Your task to perform on an android device: Go to settings Image 0: 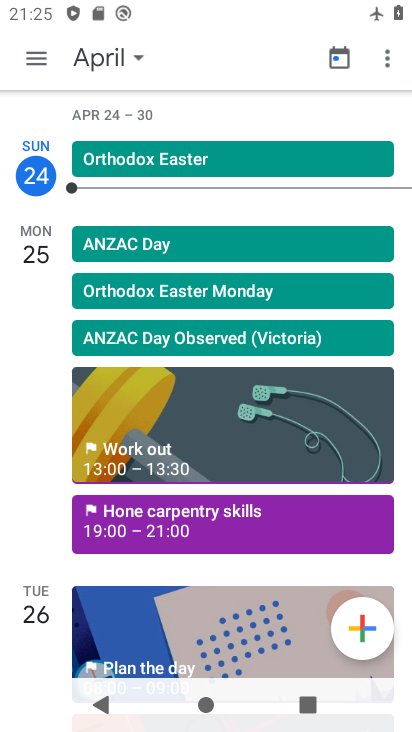
Step 0: press home button
Your task to perform on an android device: Go to settings Image 1: 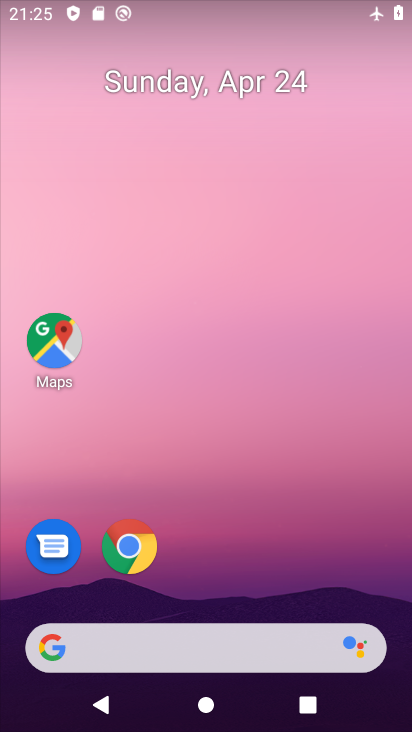
Step 1: drag from (295, 595) to (294, 197)
Your task to perform on an android device: Go to settings Image 2: 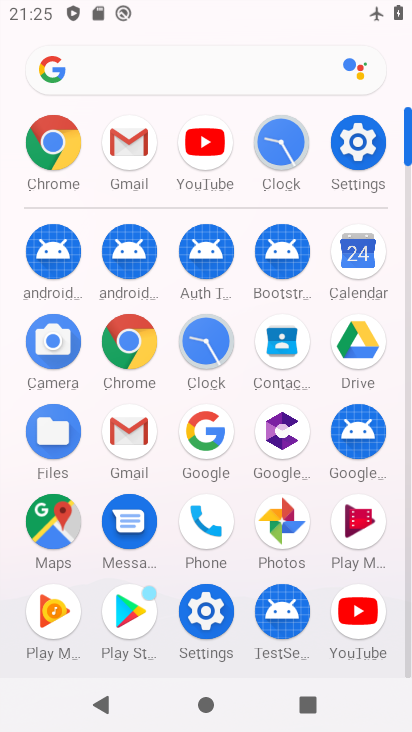
Step 2: click (358, 152)
Your task to perform on an android device: Go to settings Image 3: 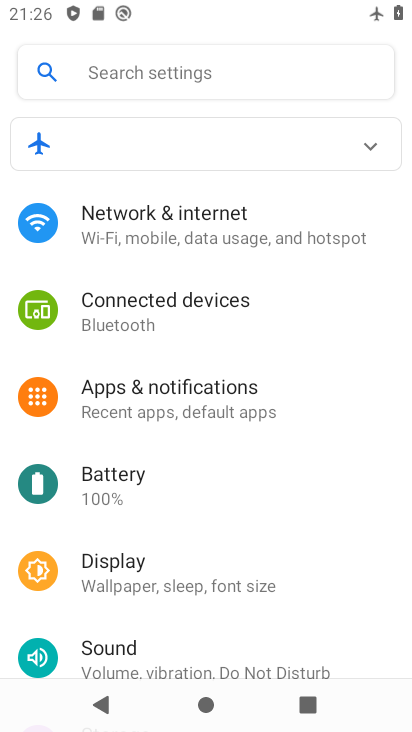
Step 3: task complete